Your task to perform on an android device: turn vacation reply on in the gmail app Image 0: 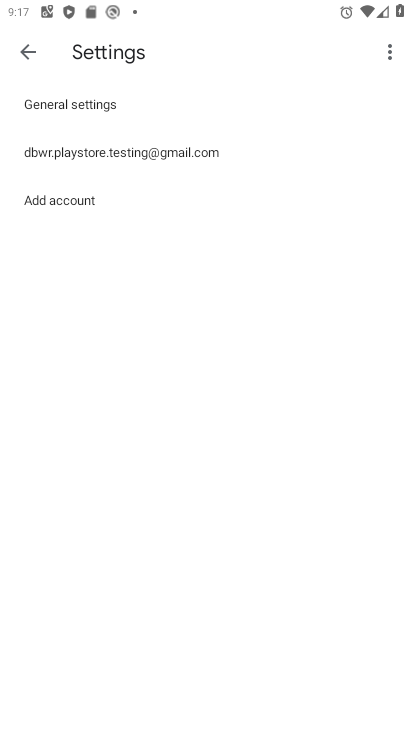
Step 0: press home button
Your task to perform on an android device: turn vacation reply on in the gmail app Image 1: 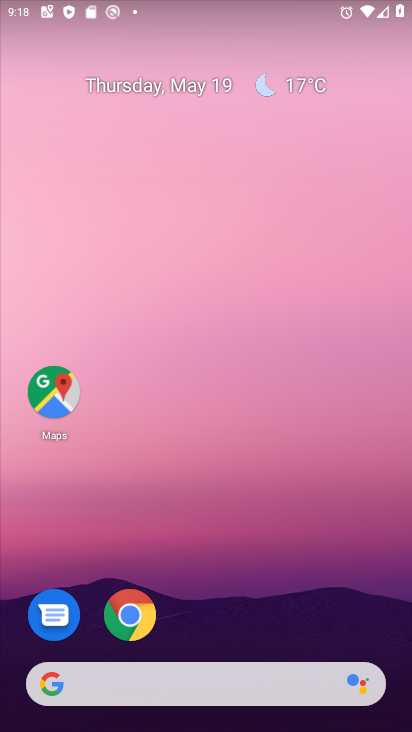
Step 1: drag from (248, 617) to (300, 97)
Your task to perform on an android device: turn vacation reply on in the gmail app Image 2: 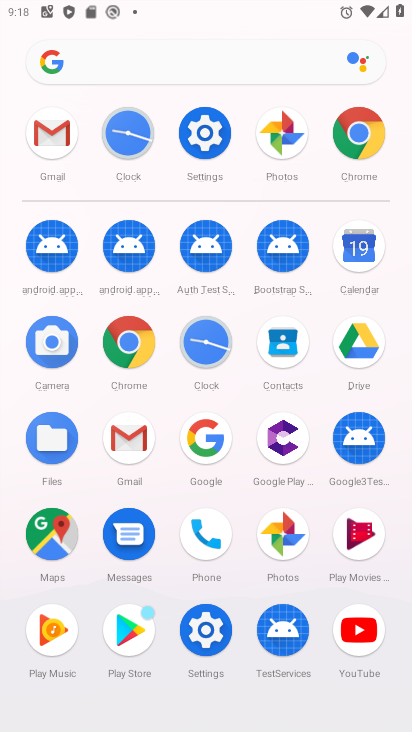
Step 2: click (64, 135)
Your task to perform on an android device: turn vacation reply on in the gmail app Image 3: 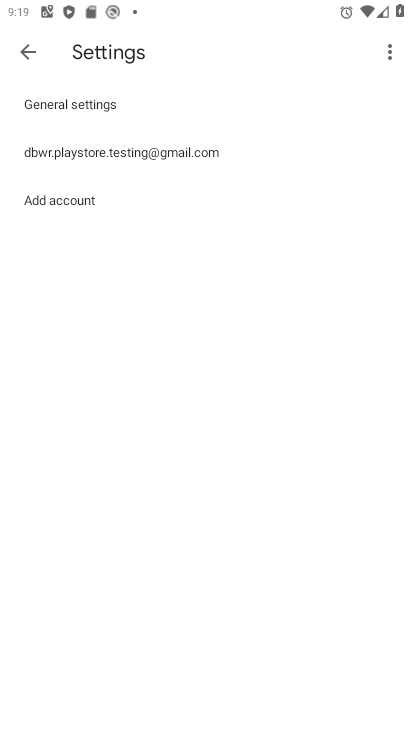
Step 3: click (164, 148)
Your task to perform on an android device: turn vacation reply on in the gmail app Image 4: 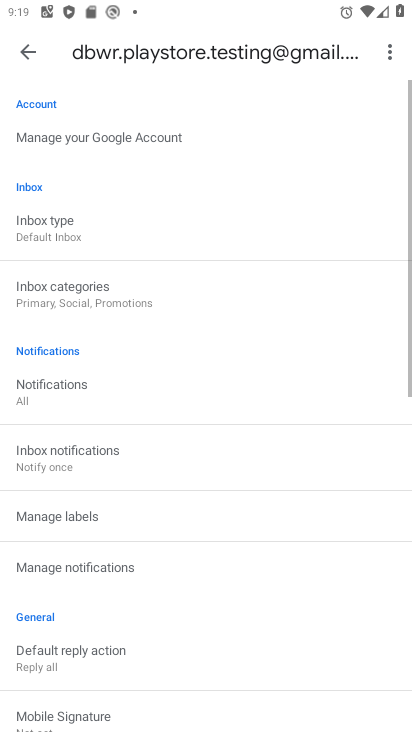
Step 4: drag from (187, 579) to (105, 344)
Your task to perform on an android device: turn vacation reply on in the gmail app Image 5: 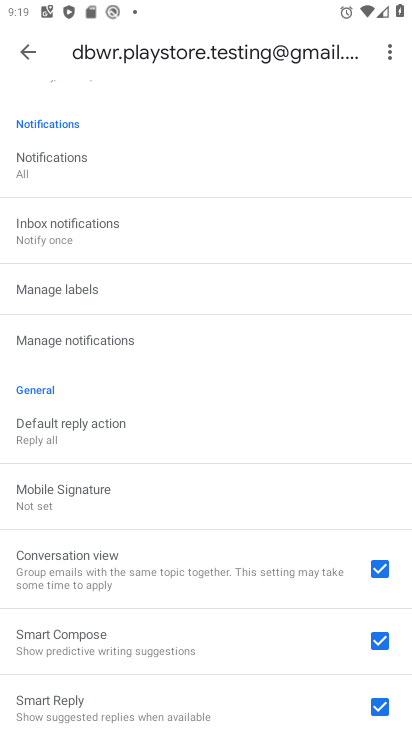
Step 5: drag from (153, 544) to (138, 362)
Your task to perform on an android device: turn vacation reply on in the gmail app Image 6: 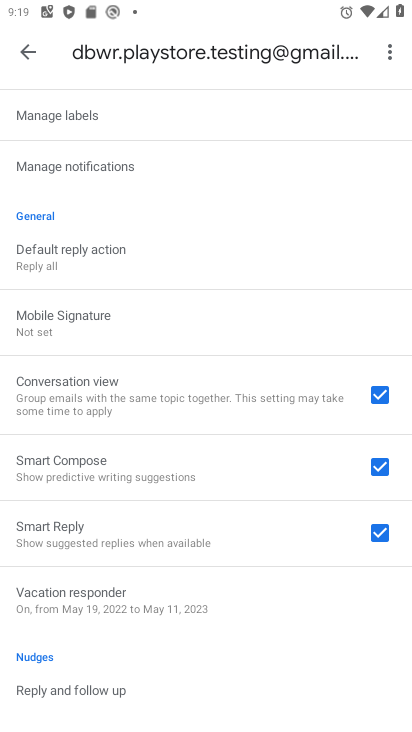
Step 6: click (151, 600)
Your task to perform on an android device: turn vacation reply on in the gmail app Image 7: 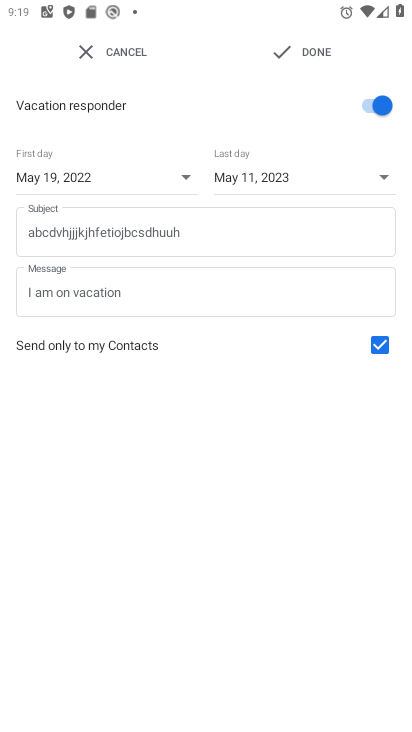
Step 7: click (186, 176)
Your task to perform on an android device: turn vacation reply on in the gmail app Image 8: 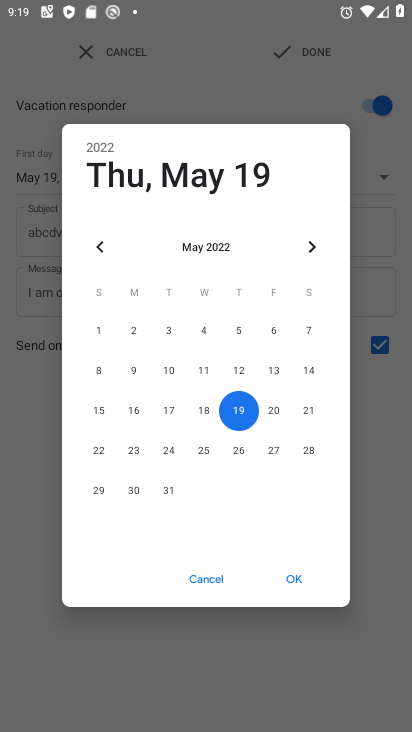
Step 8: click (276, 410)
Your task to perform on an android device: turn vacation reply on in the gmail app Image 9: 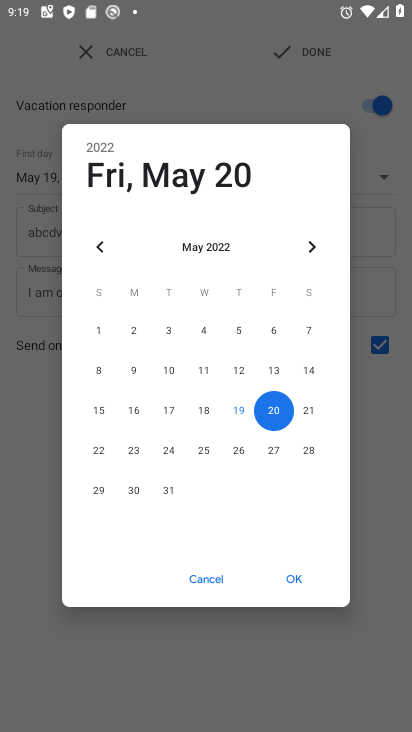
Step 9: click (291, 574)
Your task to perform on an android device: turn vacation reply on in the gmail app Image 10: 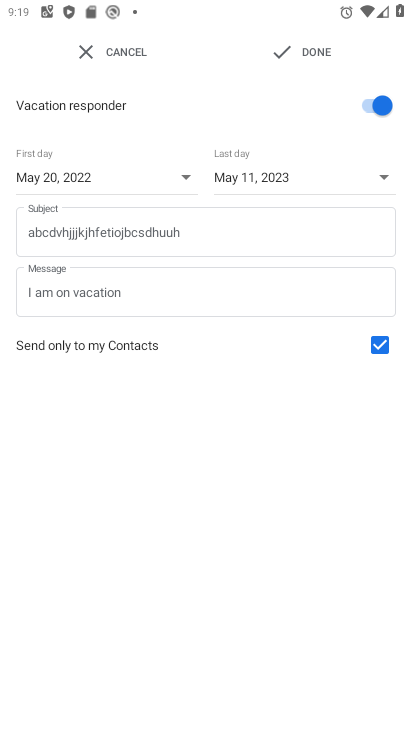
Step 10: task complete